Your task to perform on an android device: Show me productivity apps on the Play Store Image 0: 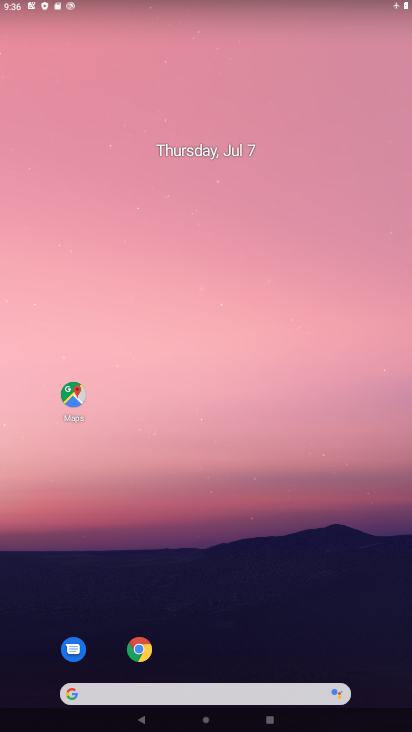
Step 0: drag from (239, 714) to (231, 168)
Your task to perform on an android device: Show me productivity apps on the Play Store Image 1: 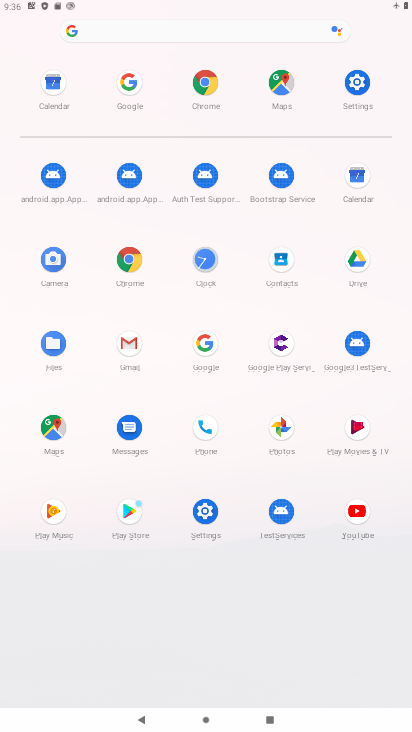
Step 1: click (126, 506)
Your task to perform on an android device: Show me productivity apps on the Play Store Image 2: 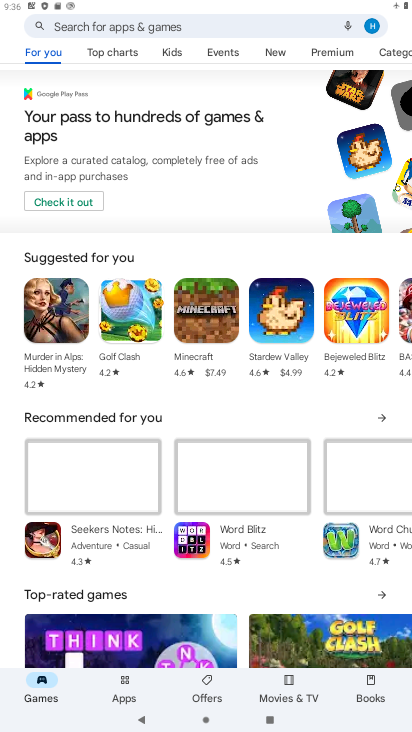
Step 2: click (397, 52)
Your task to perform on an android device: Show me productivity apps on the Play Store Image 3: 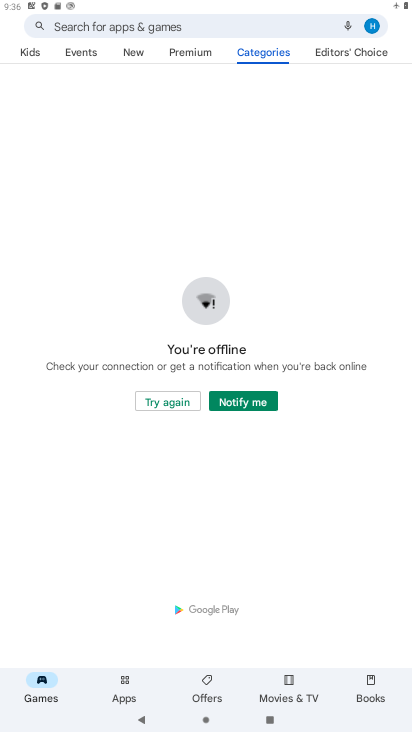
Step 3: click (163, 398)
Your task to perform on an android device: Show me productivity apps on the Play Store Image 4: 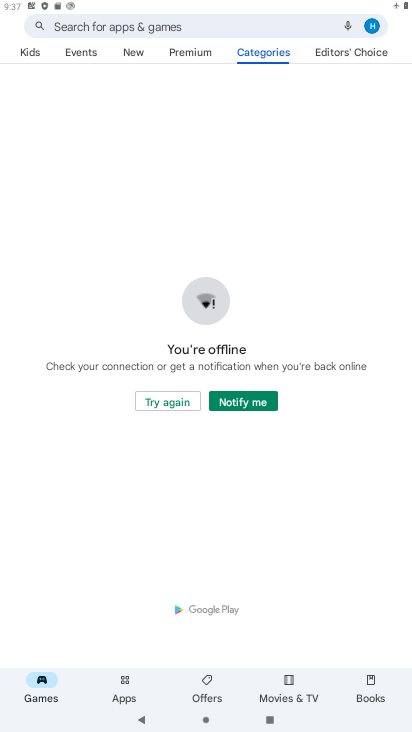
Step 4: task complete